Your task to perform on an android device: Check the settings for the Google Play Books app Image 0: 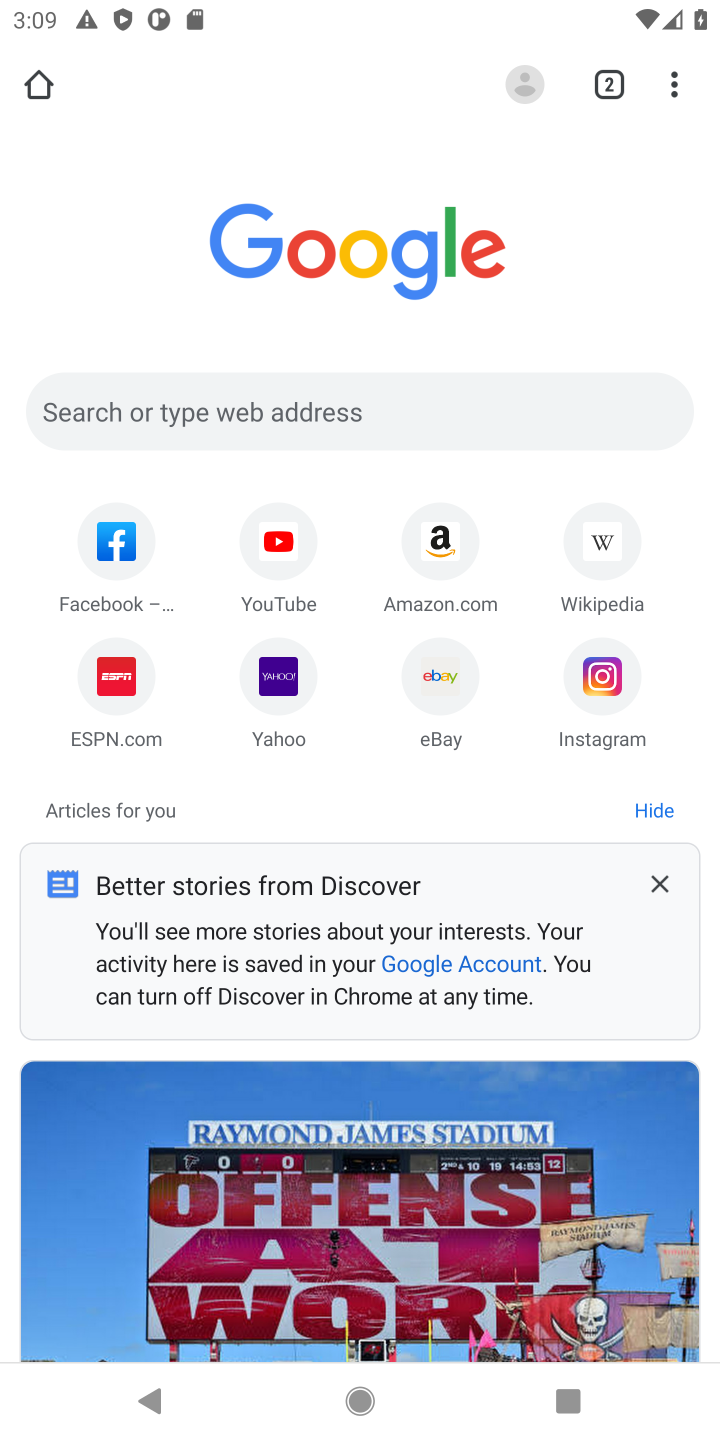
Step 0: press home button
Your task to perform on an android device: Check the settings for the Google Play Books app Image 1: 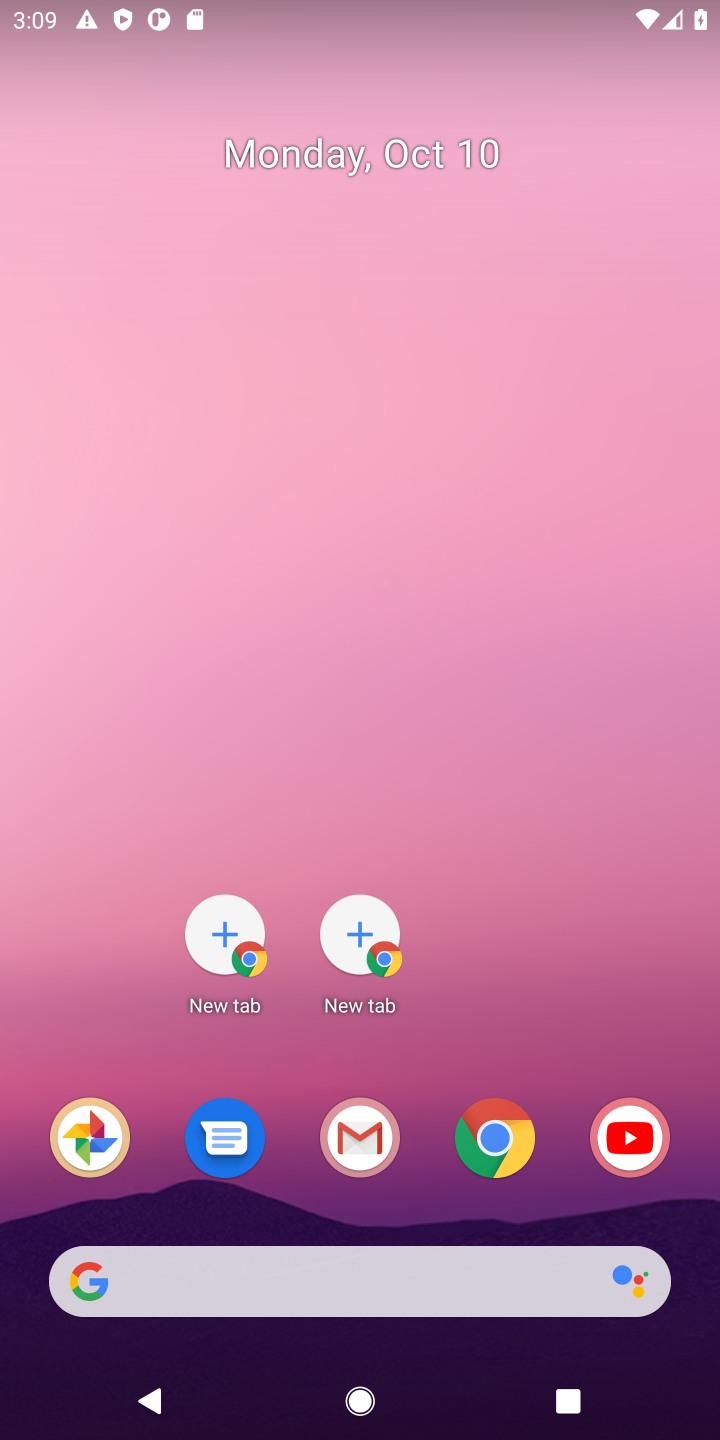
Step 1: drag from (486, 1275) to (550, 281)
Your task to perform on an android device: Check the settings for the Google Play Books app Image 2: 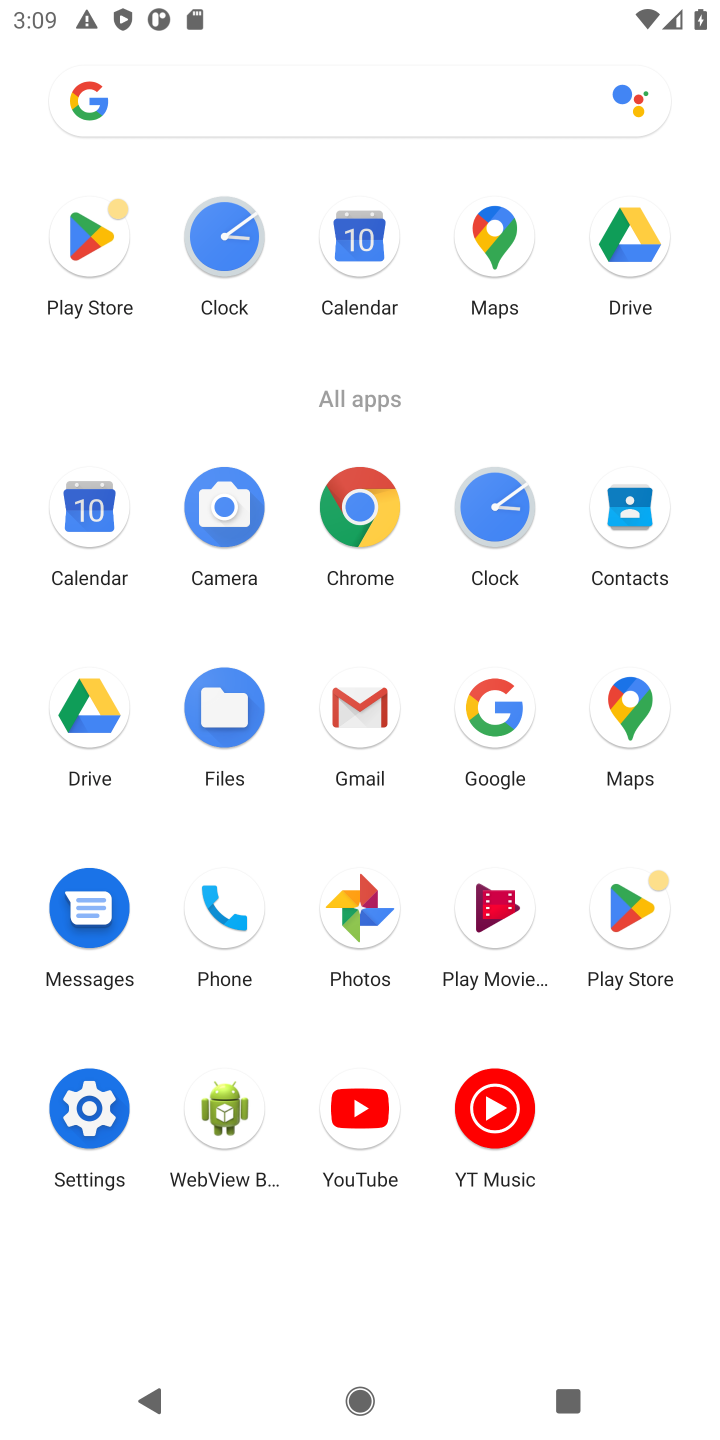
Step 2: click (96, 1114)
Your task to perform on an android device: Check the settings for the Google Play Books app Image 3: 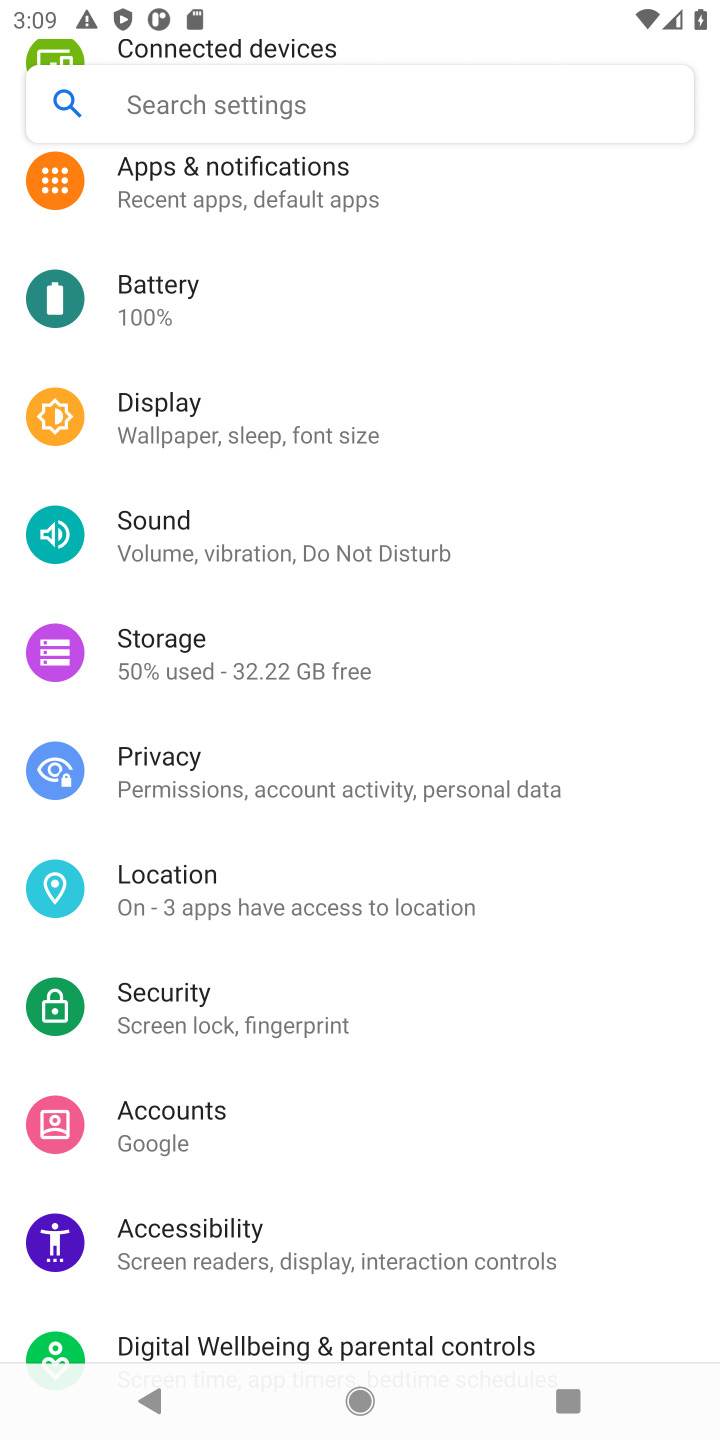
Step 3: click (271, 217)
Your task to perform on an android device: Check the settings for the Google Play Books app Image 4: 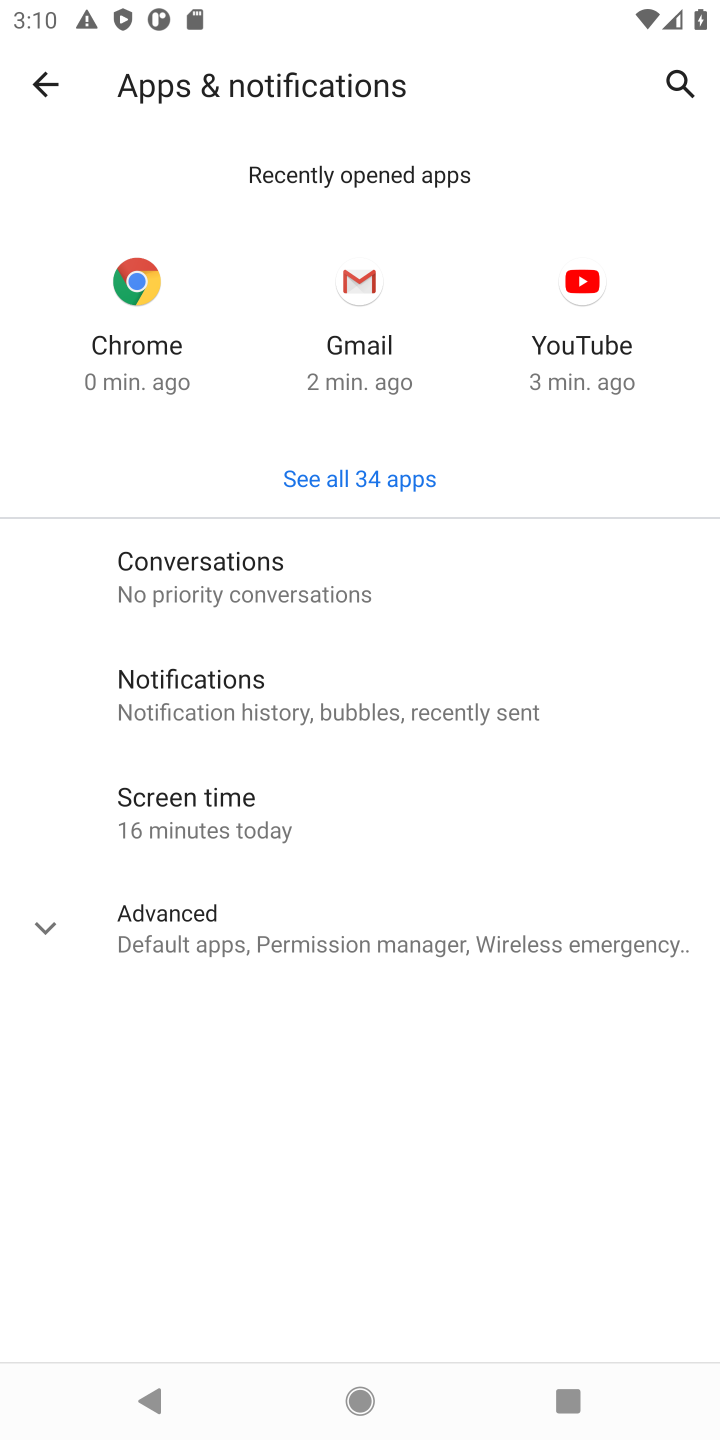
Step 4: click (386, 476)
Your task to perform on an android device: Check the settings for the Google Play Books app Image 5: 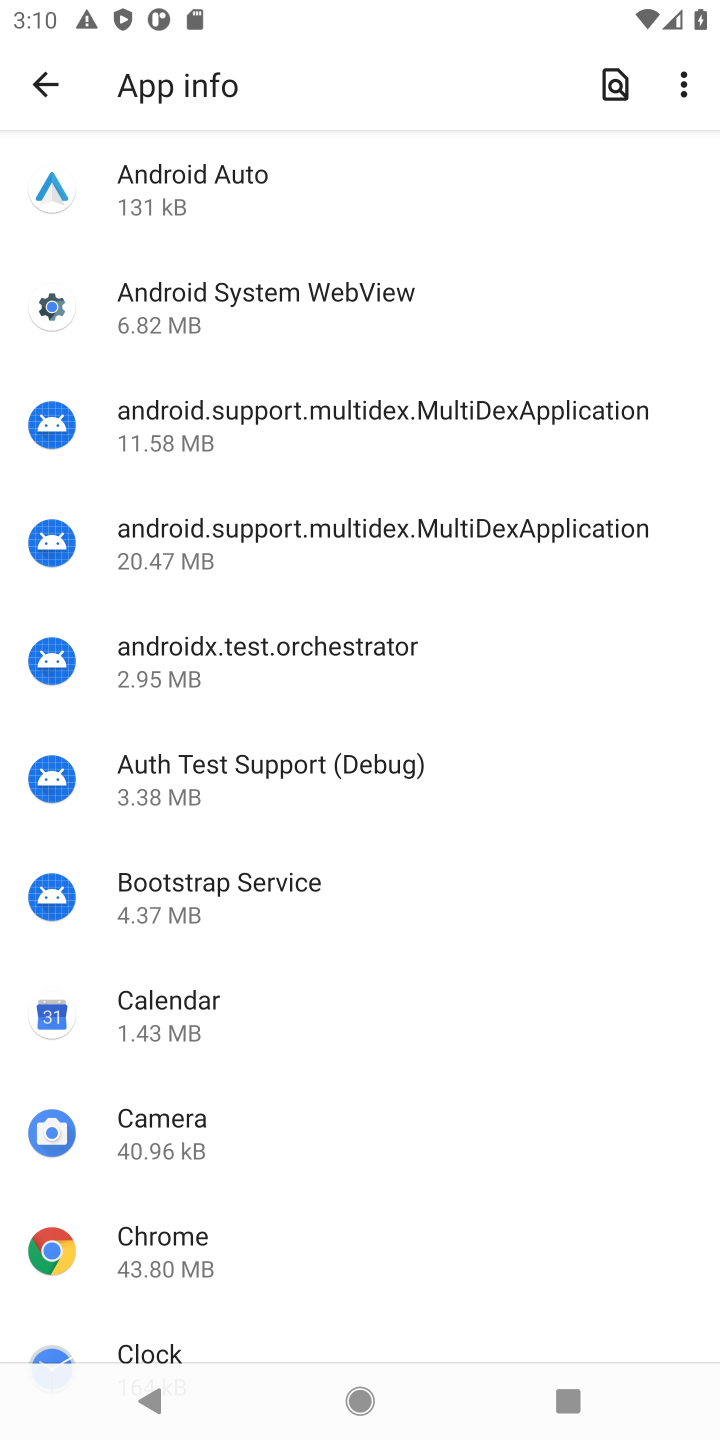
Step 5: task complete